Your task to perform on an android device: Open the phone app and click the voicemail tab. Image 0: 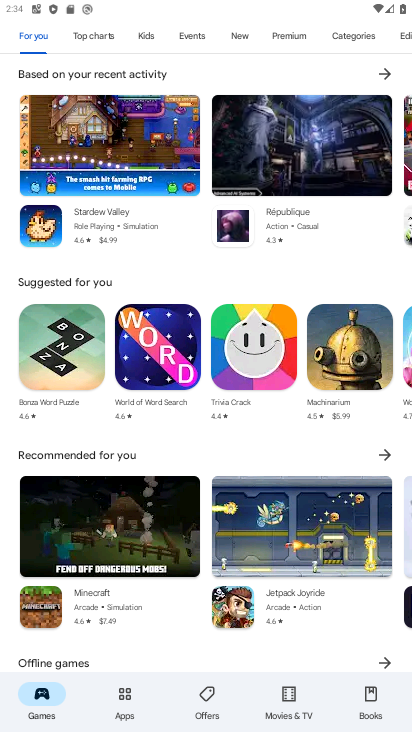
Step 0: press home button
Your task to perform on an android device: Open the phone app and click the voicemail tab. Image 1: 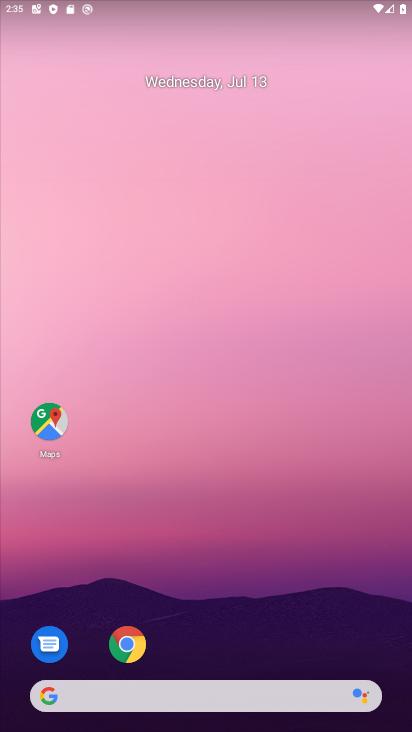
Step 1: drag from (297, 632) to (287, 164)
Your task to perform on an android device: Open the phone app and click the voicemail tab. Image 2: 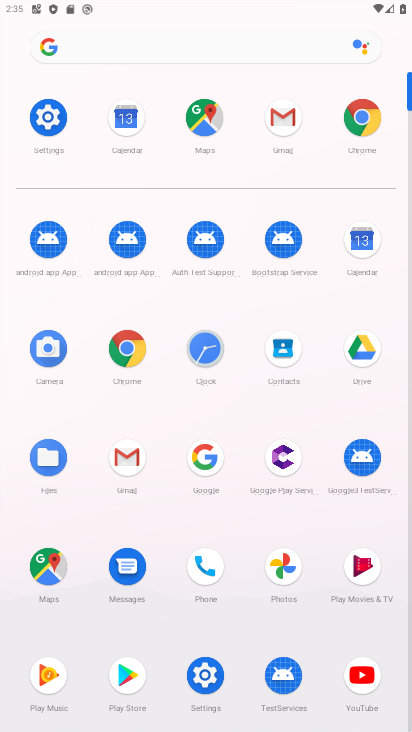
Step 2: click (203, 579)
Your task to perform on an android device: Open the phone app and click the voicemail tab. Image 3: 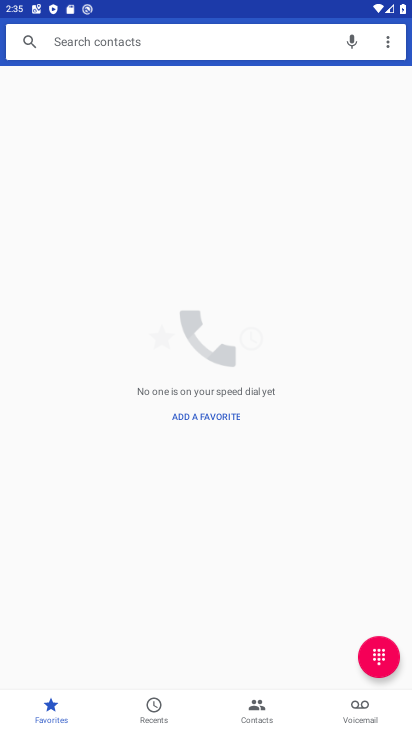
Step 3: click (353, 714)
Your task to perform on an android device: Open the phone app and click the voicemail tab. Image 4: 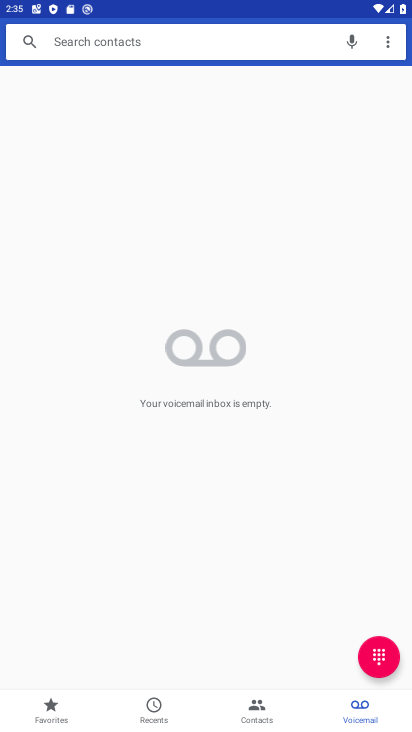
Step 4: task complete